Your task to perform on an android device: Open my contact list Image 0: 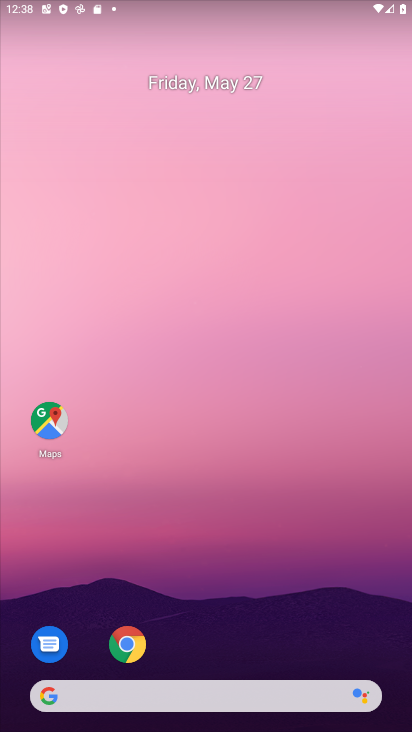
Step 0: drag from (341, 630) to (298, 21)
Your task to perform on an android device: Open my contact list Image 1: 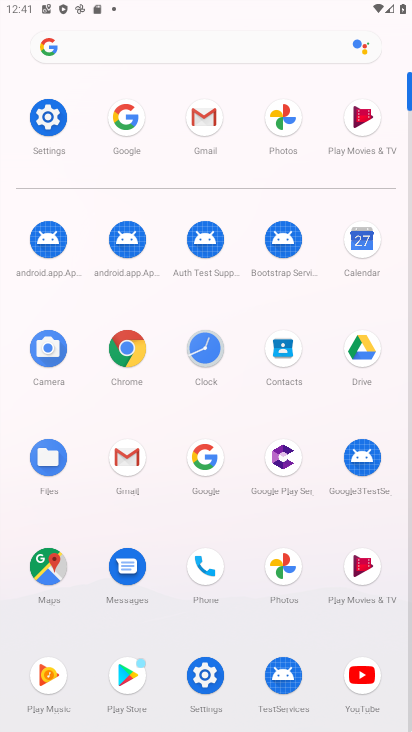
Step 1: click (278, 343)
Your task to perform on an android device: Open my contact list Image 2: 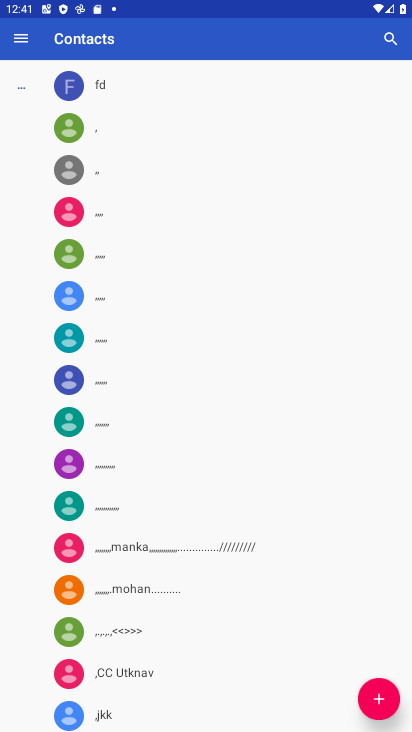
Step 2: task complete